Your task to perform on an android device: Show me popular games on the Play Store Image 0: 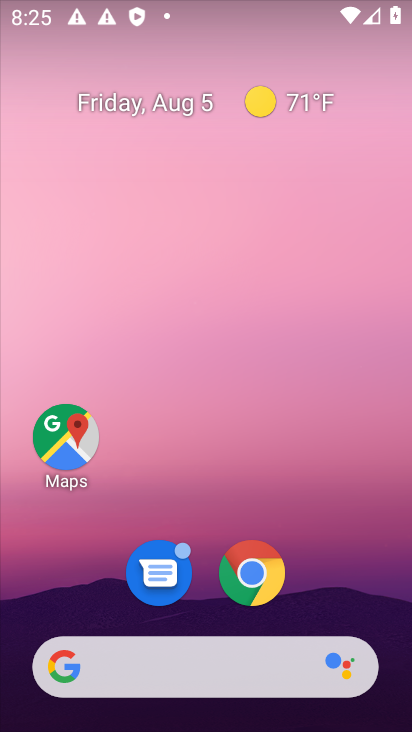
Step 0: press home button
Your task to perform on an android device: Show me popular games on the Play Store Image 1: 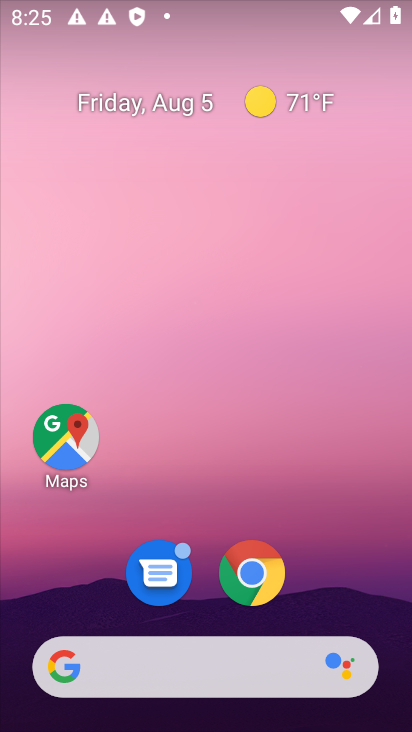
Step 1: drag from (319, 610) to (375, 54)
Your task to perform on an android device: Show me popular games on the Play Store Image 2: 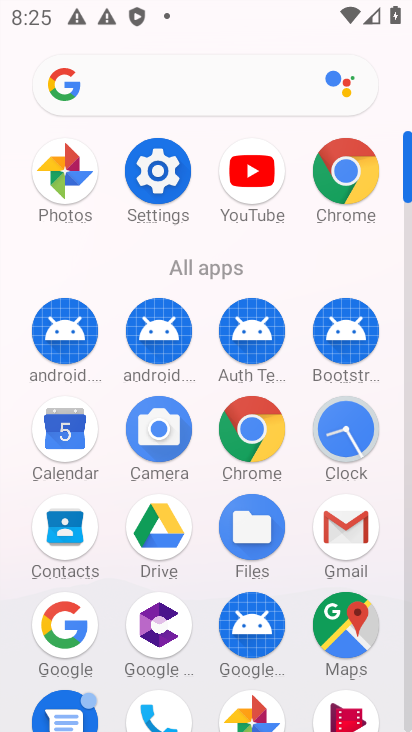
Step 2: drag from (199, 585) to (230, 110)
Your task to perform on an android device: Show me popular games on the Play Store Image 3: 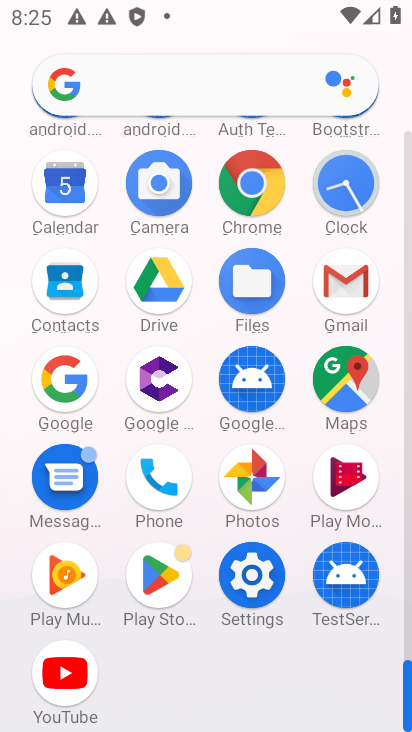
Step 3: click (149, 567)
Your task to perform on an android device: Show me popular games on the Play Store Image 4: 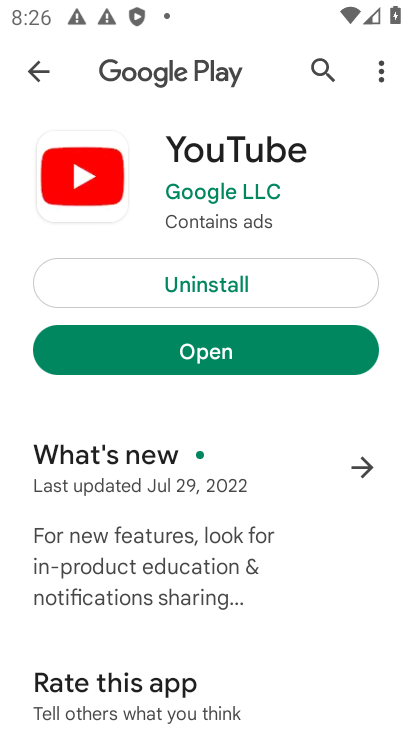
Step 4: click (33, 72)
Your task to perform on an android device: Show me popular games on the Play Store Image 5: 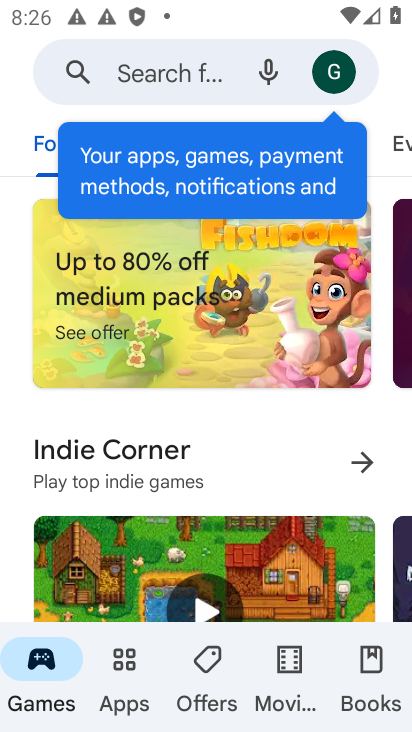
Step 5: task complete